Your task to perform on an android device: check google app version Image 0: 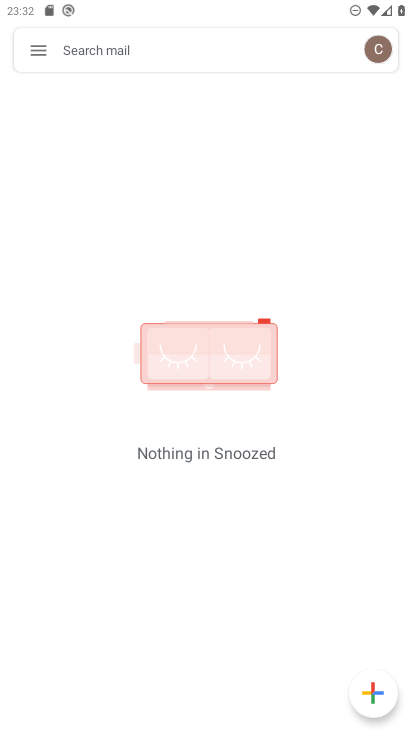
Step 0: press home button
Your task to perform on an android device: check google app version Image 1: 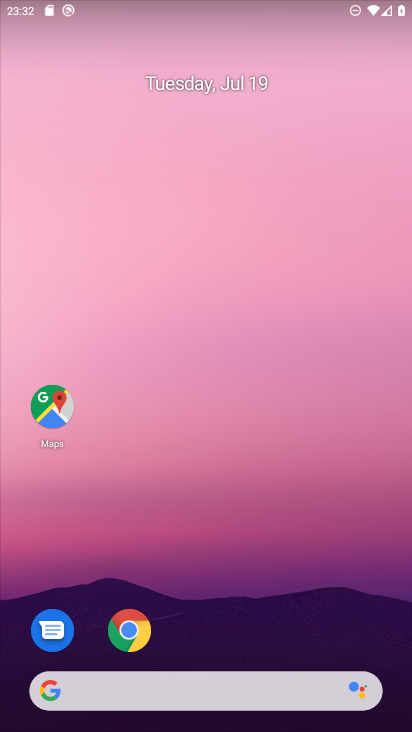
Step 1: drag from (225, 571) to (169, 66)
Your task to perform on an android device: check google app version Image 2: 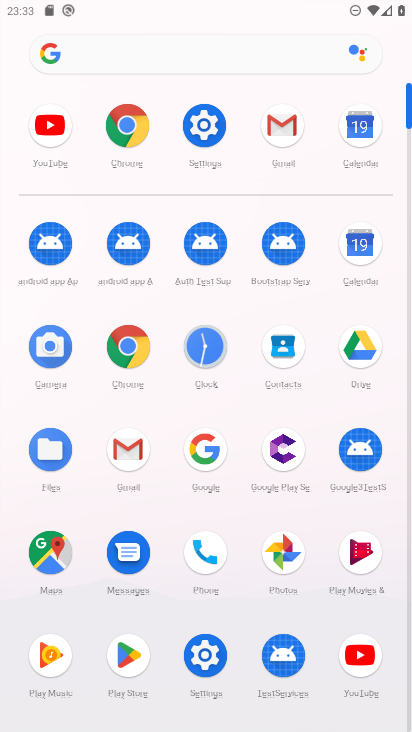
Step 2: click (208, 483)
Your task to perform on an android device: check google app version Image 3: 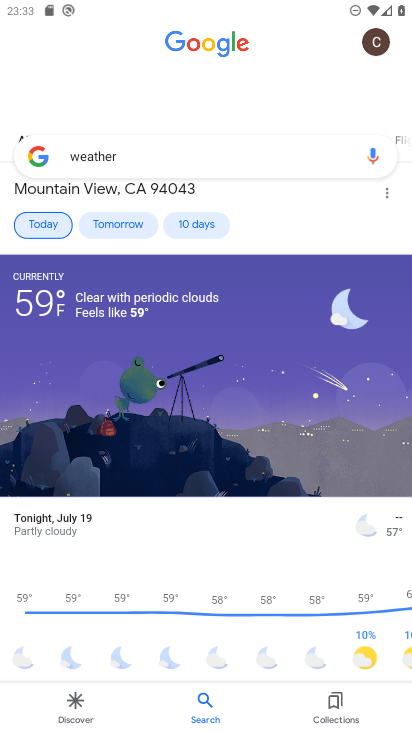
Step 3: click (377, 36)
Your task to perform on an android device: check google app version Image 4: 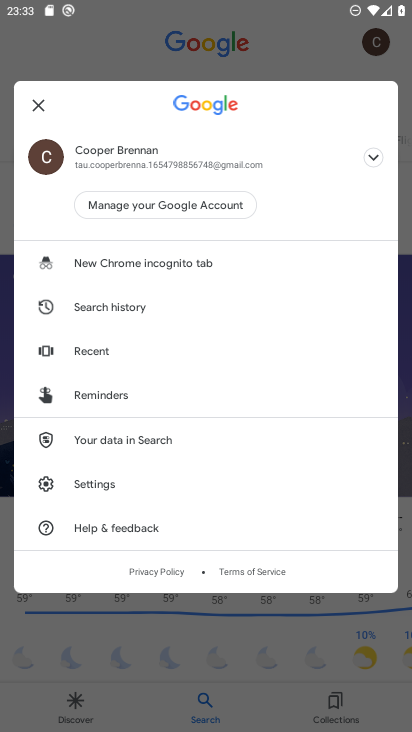
Step 4: click (50, 488)
Your task to perform on an android device: check google app version Image 5: 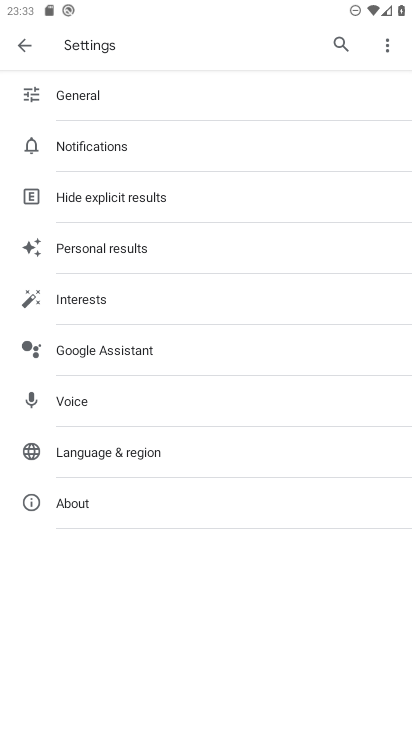
Step 5: click (119, 506)
Your task to perform on an android device: check google app version Image 6: 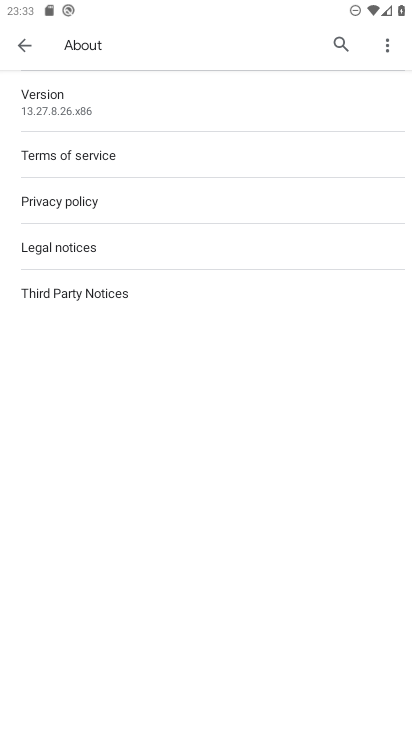
Step 6: click (65, 108)
Your task to perform on an android device: check google app version Image 7: 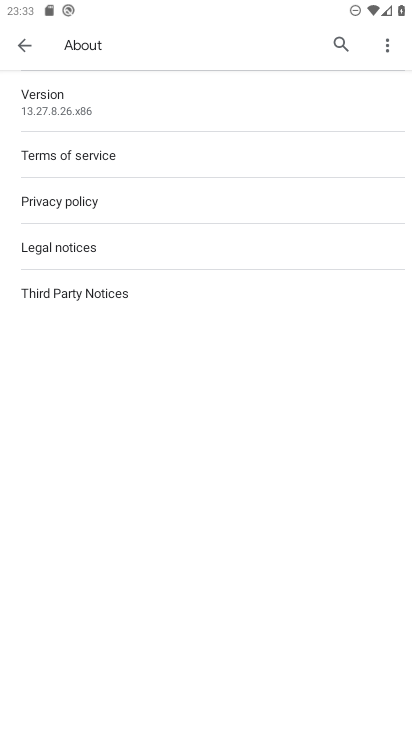
Step 7: task complete